Your task to perform on an android device: turn on priority inbox in the gmail app Image 0: 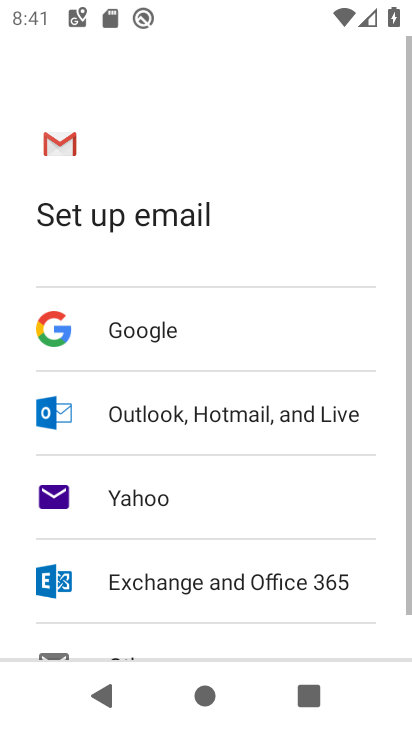
Step 0: press home button
Your task to perform on an android device: turn on priority inbox in the gmail app Image 1: 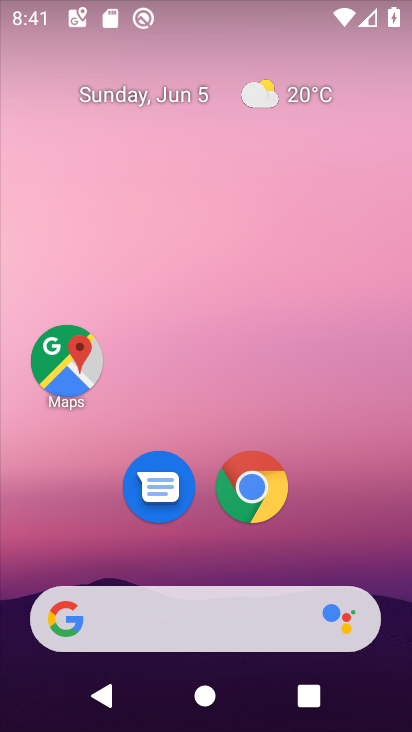
Step 1: drag from (304, 546) to (308, 158)
Your task to perform on an android device: turn on priority inbox in the gmail app Image 2: 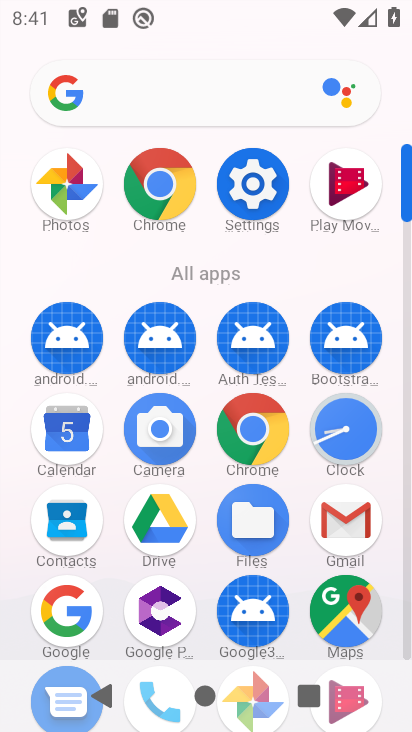
Step 2: click (334, 511)
Your task to perform on an android device: turn on priority inbox in the gmail app Image 3: 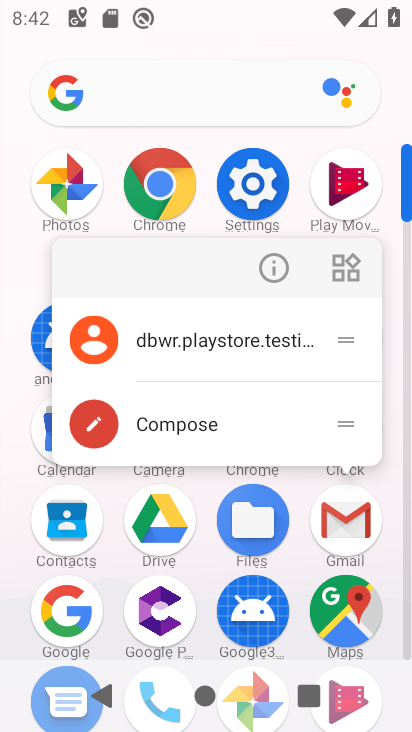
Step 3: click (340, 524)
Your task to perform on an android device: turn on priority inbox in the gmail app Image 4: 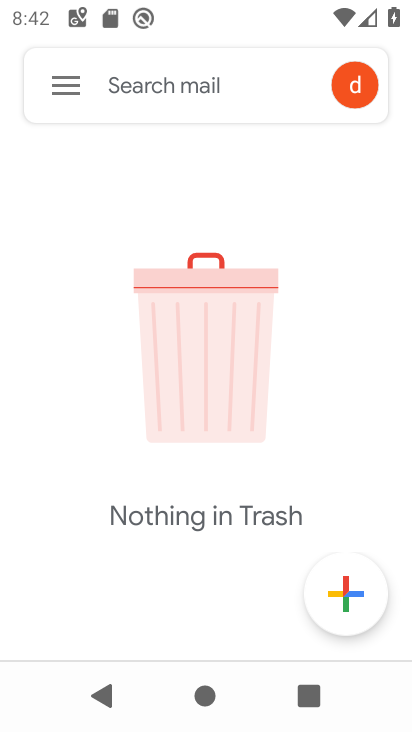
Step 4: click (66, 67)
Your task to perform on an android device: turn on priority inbox in the gmail app Image 5: 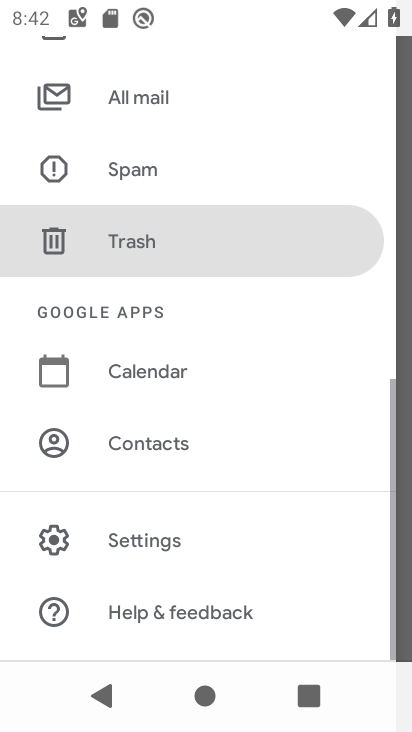
Step 5: click (83, 543)
Your task to perform on an android device: turn on priority inbox in the gmail app Image 6: 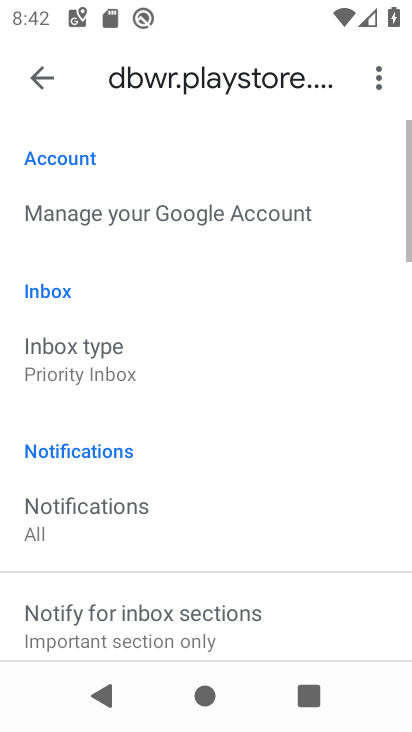
Step 6: click (113, 357)
Your task to perform on an android device: turn on priority inbox in the gmail app Image 7: 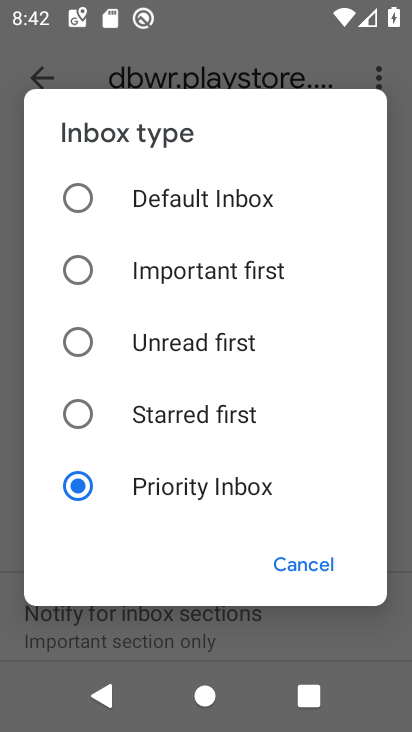
Step 7: task complete